Your task to perform on an android device: Show me popular games on the Play Store Image 0: 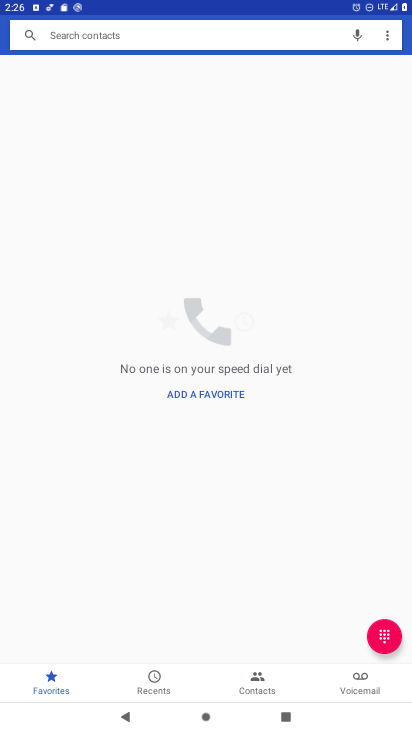
Step 0: press home button
Your task to perform on an android device: Show me popular games on the Play Store Image 1: 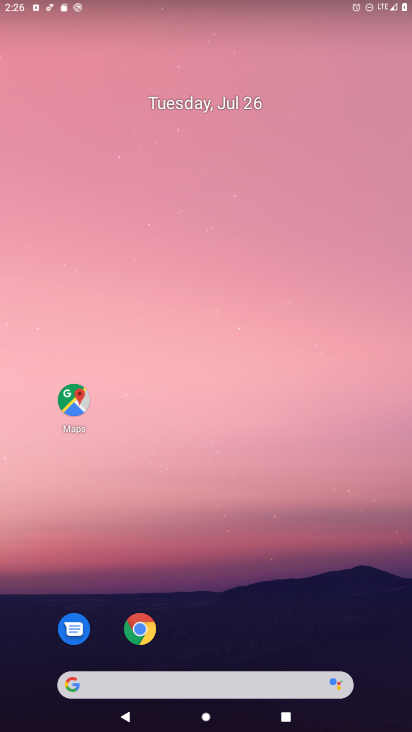
Step 1: drag from (391, 669) to (333, 138)
Your task to perform on an android device: Show me popular games on the Play Store Image 2: 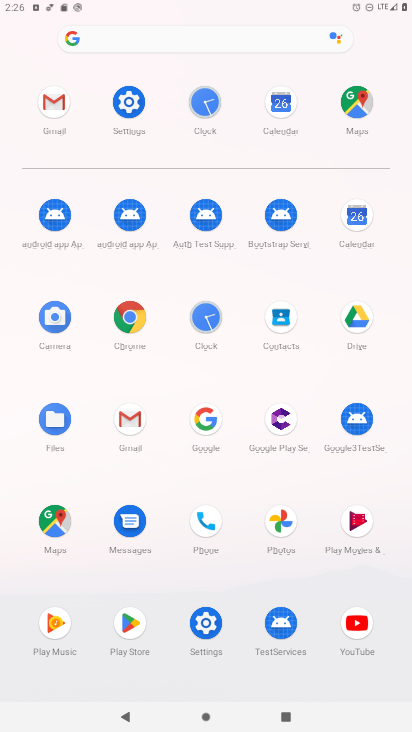
Step 2: click (129, 621)
Your task to perform on an android device: Show me popular games on the Play Store Image 3: 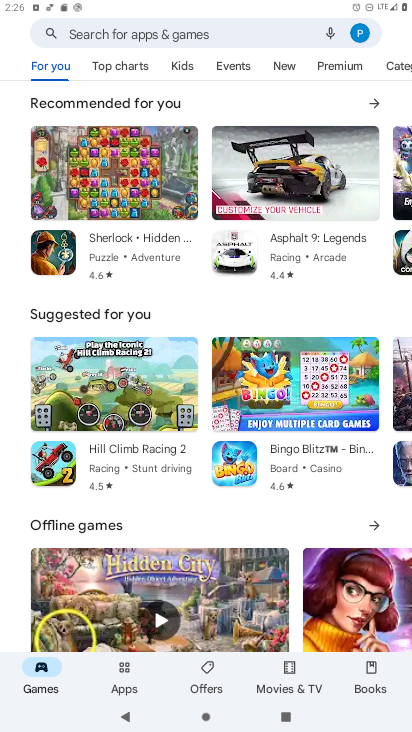
Step 3: drag from (241, 532) to (248, 228)
Your task to perform on an android device: Show me popular games on the Play Store Image 4: 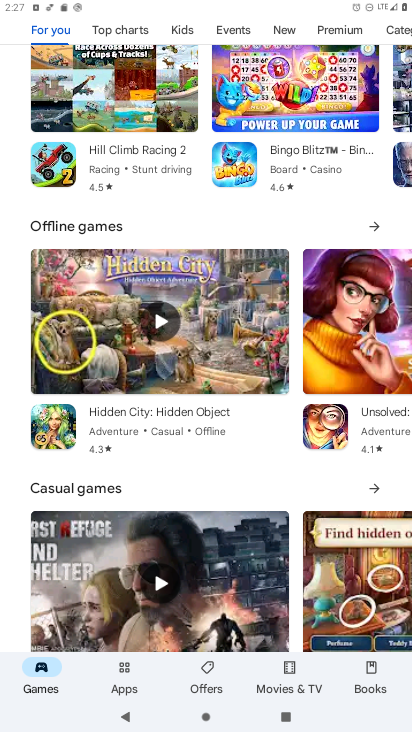
Step 4: drag from (295, 508) to (276, 162)
Your task to perform on an android device: Show me popular games on the Play Store Image 5: 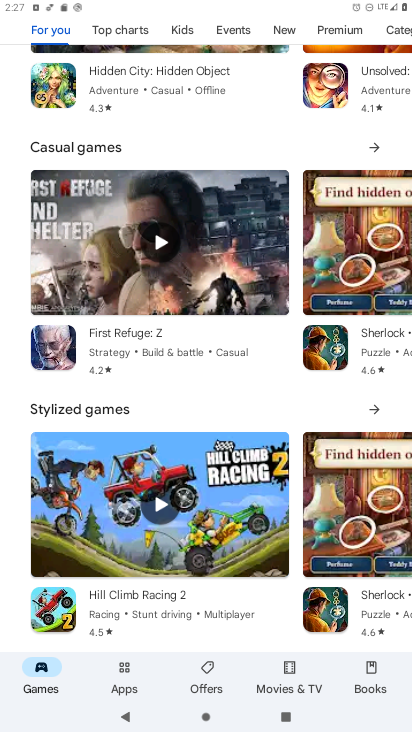
Step 5: drag from (293, 443) to (292, 74)
Your task to perform on an android device: Show me popular games on the Play Store Image 6: 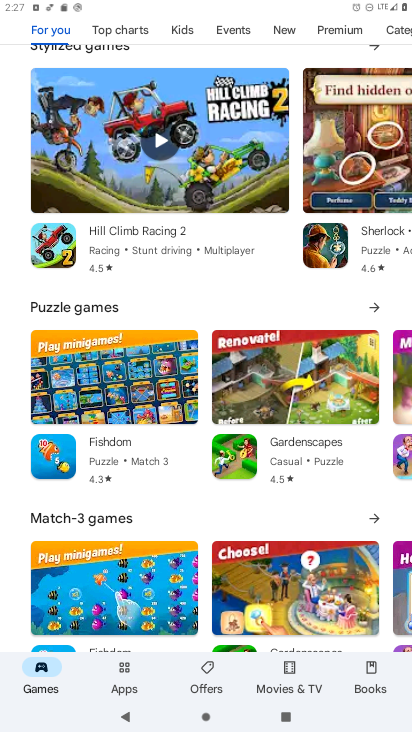
Step 6: drag from (287, 533) to (294, 94)
Your task to perform on an android device: Show me popular games on the Play Store Image 7: 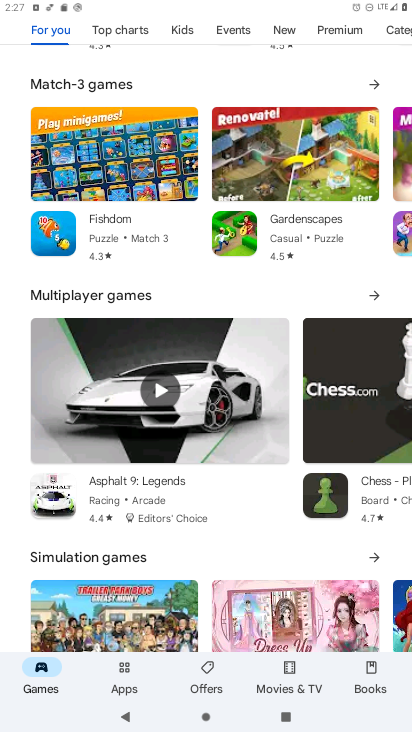
Step 7: drag from (286, 575) to (279, 174)
Your task to perform on an android device: Show me popular games on the Play Store Image 8: 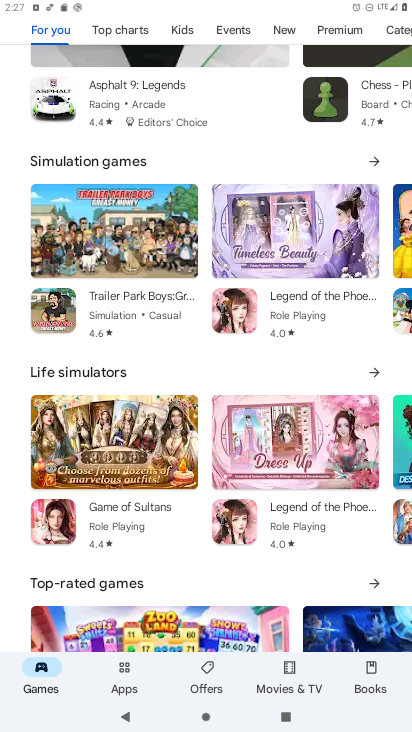
Step 8: drag from (298, 610) to (273, 179)
Your task to perform on an android device: Show me popular games on the Play Store Image 9: 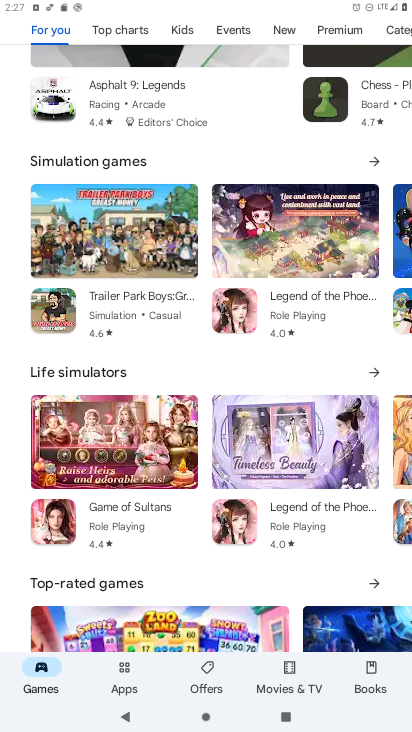
Step 9: drag from (295, 606) to (268, 131)
Your task to perform on an android device: Show me popular games on the Play Store Image 10: 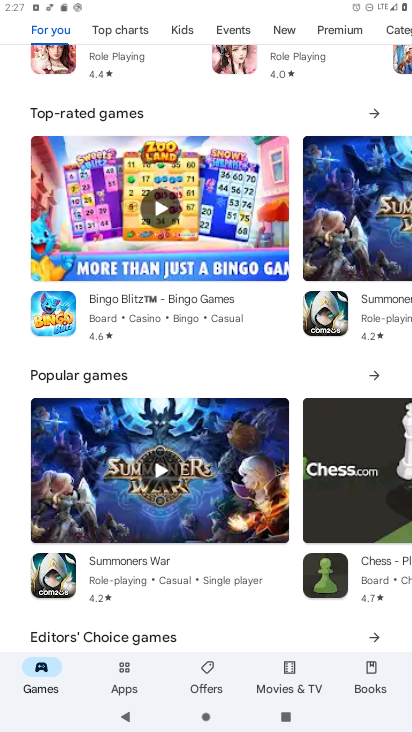
Step 10: click (374, 376)
Your task to perform on an android device: Show me popular games on the Play Store Image 11: 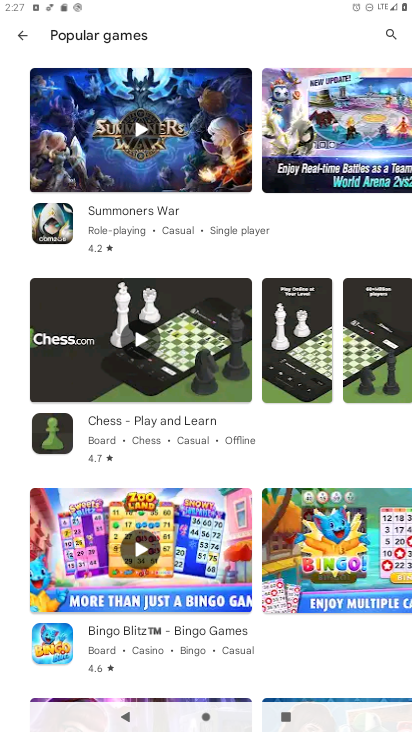
Step 11: task complete